Your task to perform on an android device: turn on sleep mode Image 0: 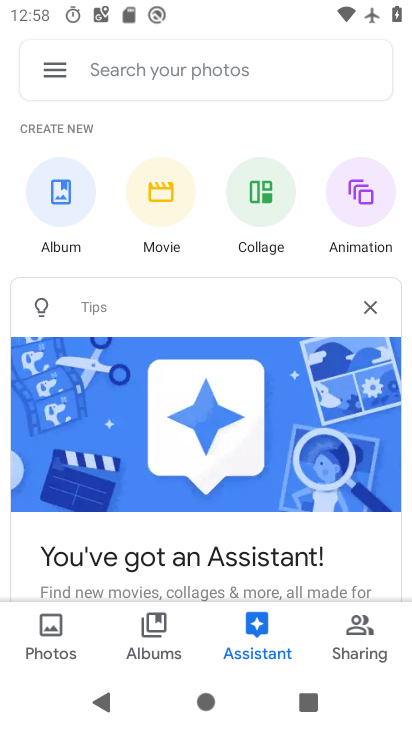
Step 0: press home button
Your task to perform on an android device: turn on sleep mode Image 1: 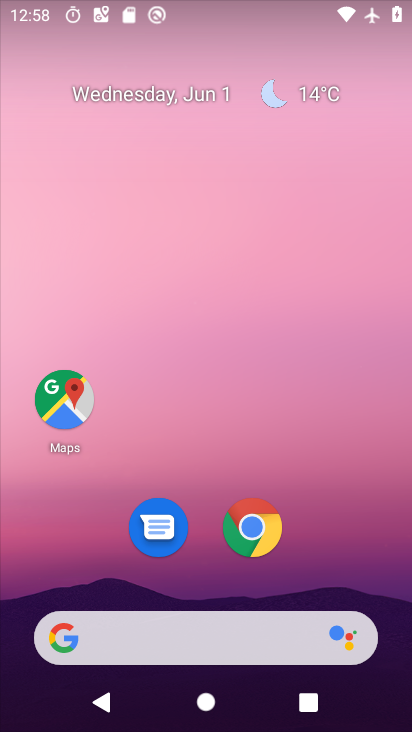
Step 1: drag from (350, 603) to (291, 14)
Your task to perform on an android device: turn on sleep mode Image 2: 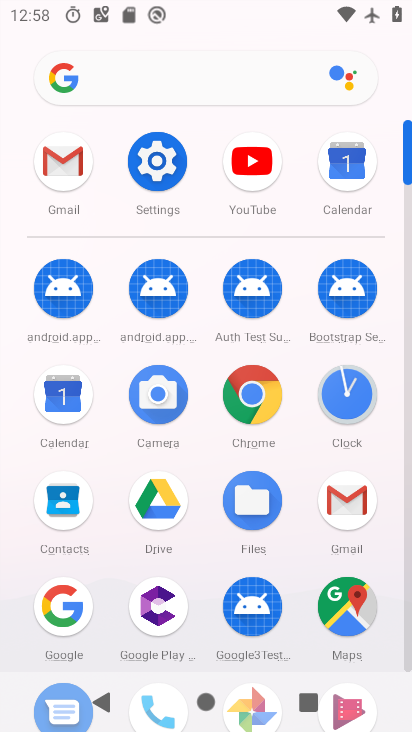
Step 2: click (154, 164)
Your task to perform on an android device: turn on sleep mode Image 3: 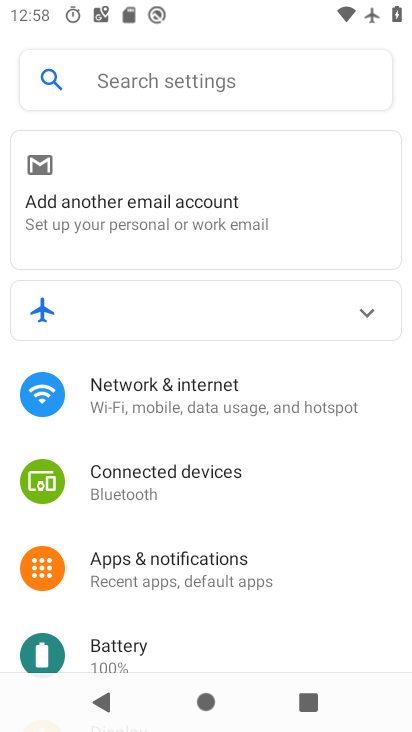
Step 3: drag from (324, 573) to (325, 196)
Your task to perform on an android device: turn on sleep mode Image 4: 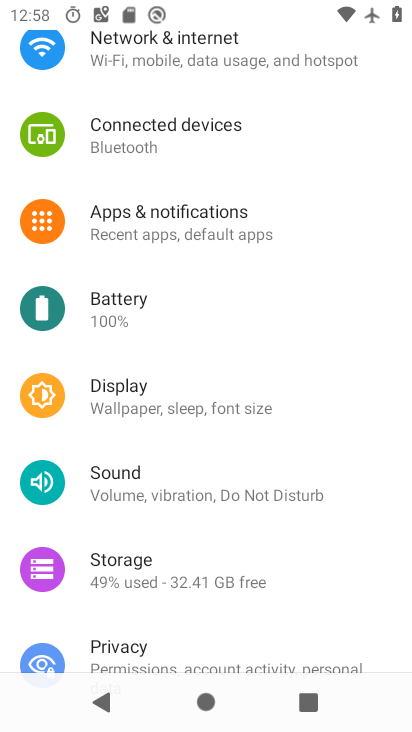
Step 4: click (132, 412)
Your task to perform on an android device: turn on sleep mode Image 5: 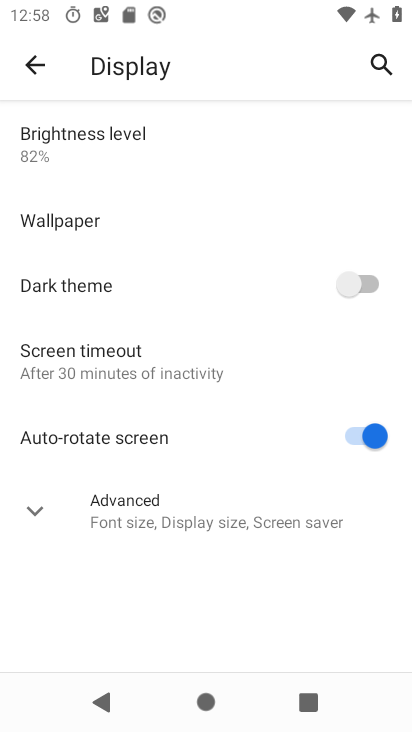
Step 5: click (35, 521)
Your task to perform on an android device: turn on sleep mode Image 6: 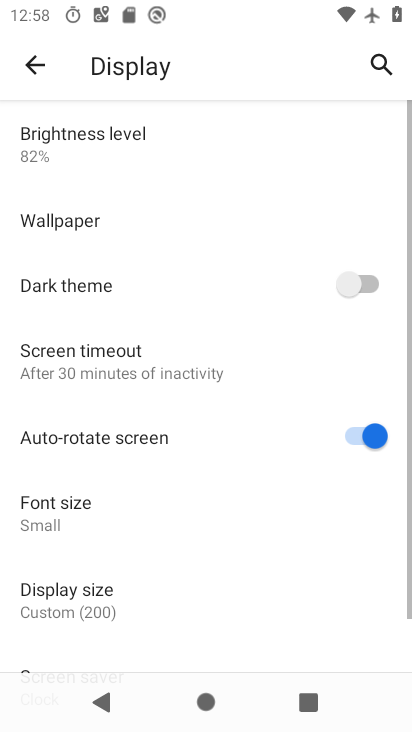
Step 6: task complete